Your task to perform on an android device: Search for seafood restaurants on Google Maps Image 0: 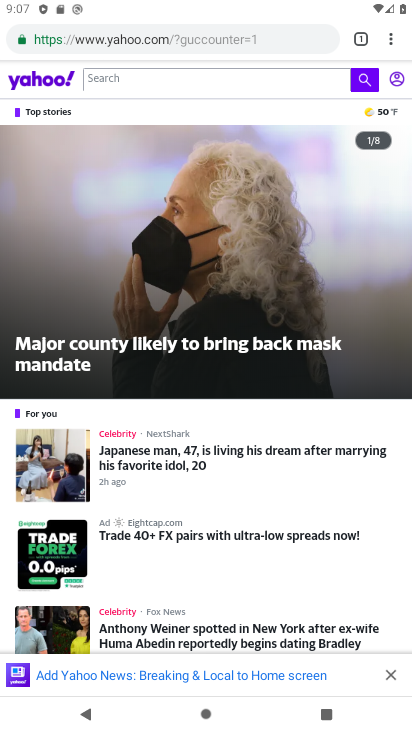
Step 0: press home button
Your task to perform on an android device: Search for seafood restaurants on Google Maps Image 1: 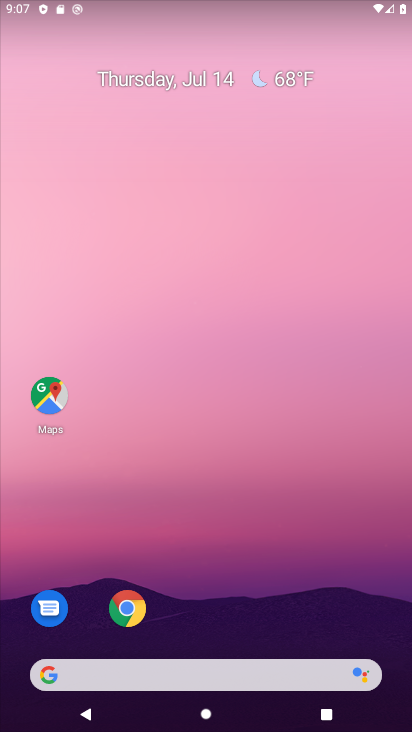
Step 1: click (56, 392)
Your task to perform on an android device: Search for seafood restaurants on Google Maps Image 2: 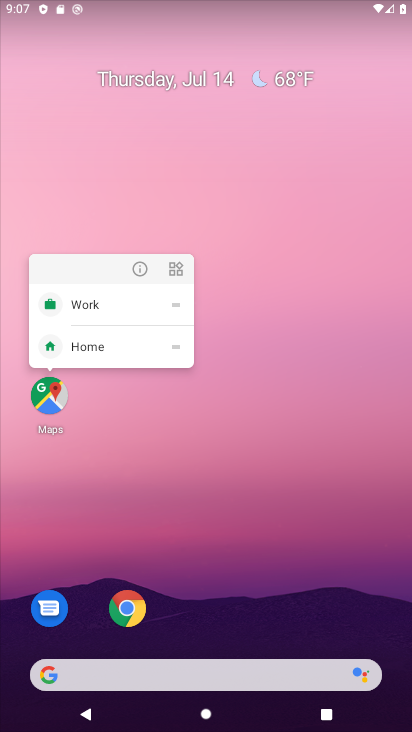
Step 2: click (56, 392)
Your task to perform on an android device: Search for seafood restaurants on Google Maps Image 3: 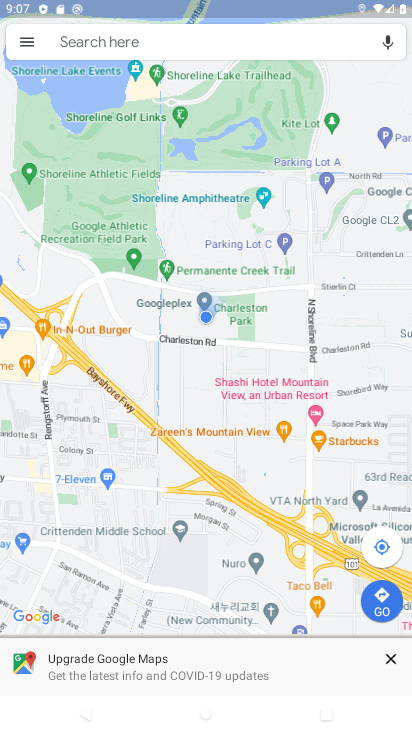
Step 3: click (154, 46)
Your task to perform on an android device: Search for seafood restaurants on Google Maps Image 4: 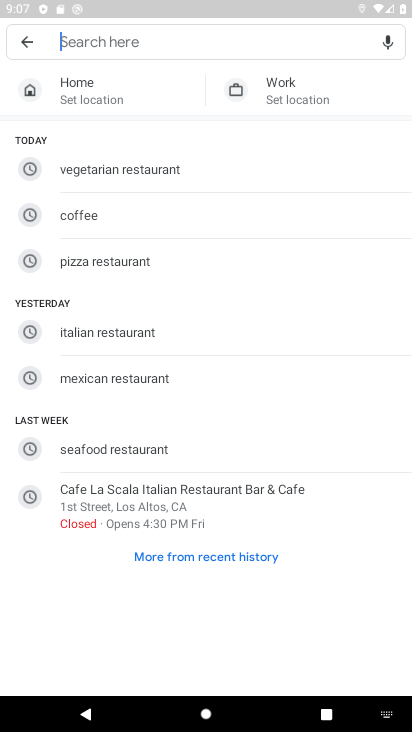
Step 4: click (87, 456)
Your task to perform on an android device: Search for seafood restaurants on Google Maps Image 5: 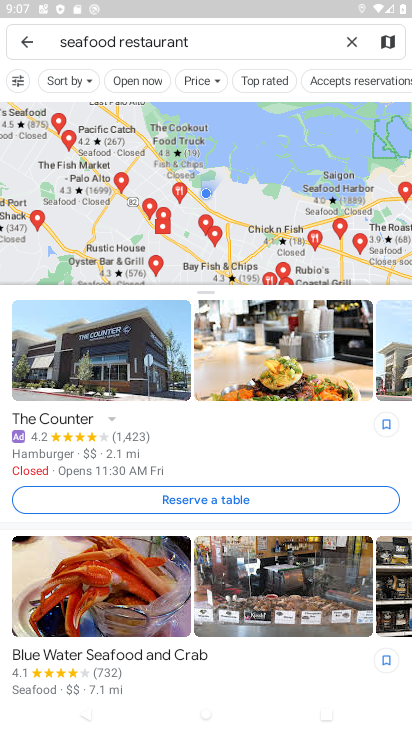
Step 5: task complete